Your task to perform on an android device: turn on notifications settings in the gmail app Image 0: 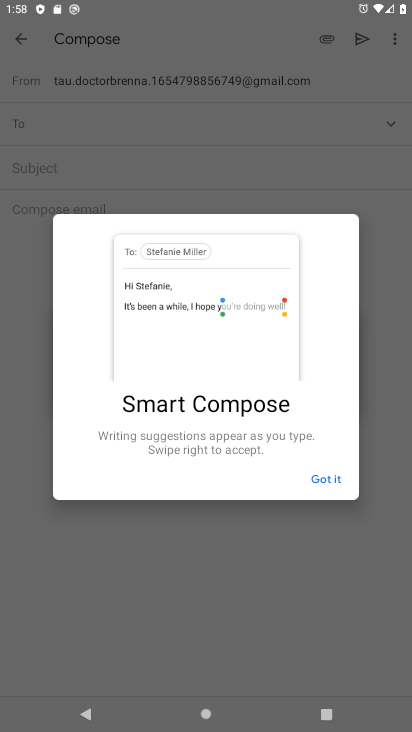
Step 0: press home button
Your task to perform on an android device: turn on notifications settings in the gmail app Image 1: 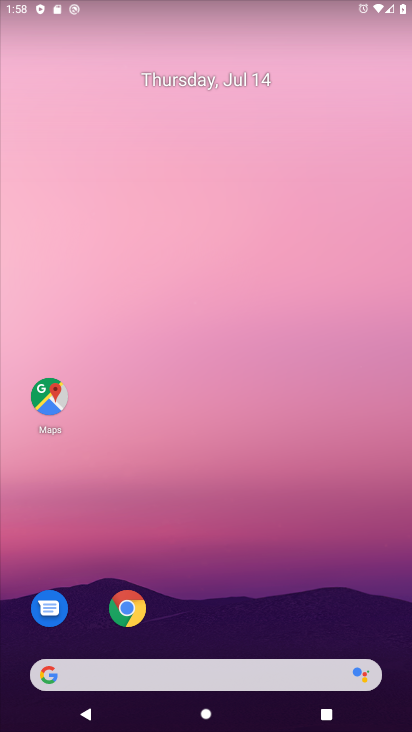
Step 1: drag from (245, 716) to (233, 97)
Your task to perform on an android device: turn on notifications settings in the gmail app Image 2: 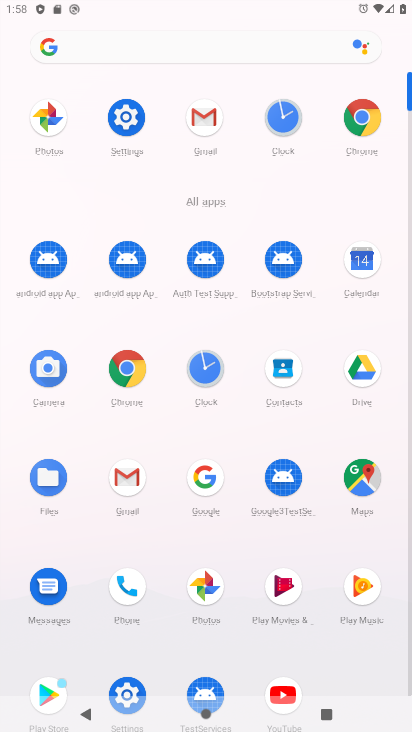
Step 2: click (132, 477)
Your task to perform on an android device: turn on notifications settings in the gmail app Image 3: 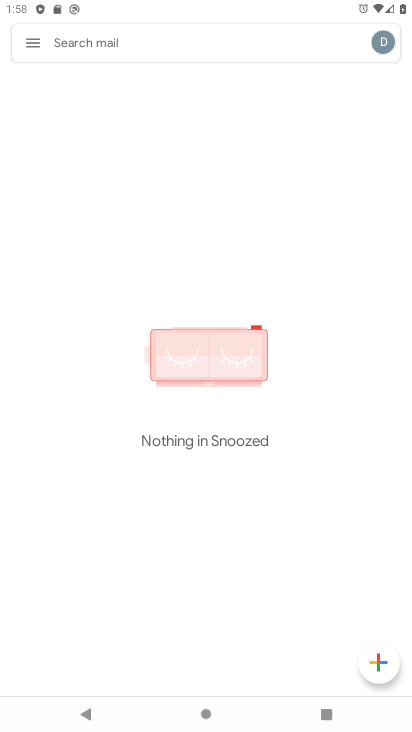
Step 3: click (34, 38)
Your task to perform on an android device: turn on notifications settings in the gmail app Image 4: 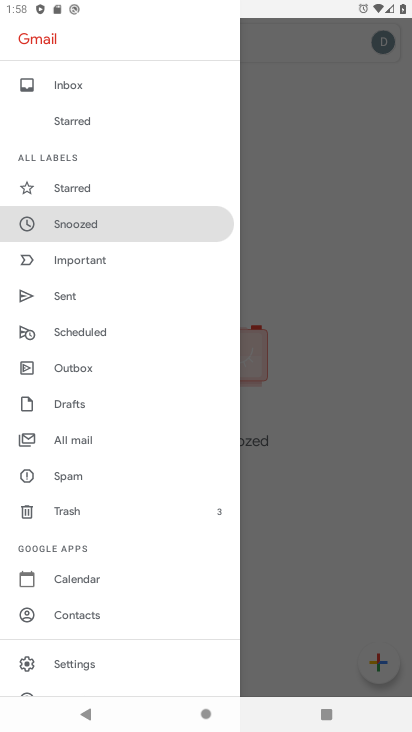
Step 4: click (67, 659)
Your task to perform on an android device: turn on notifications settings in the gmail app Image 5: 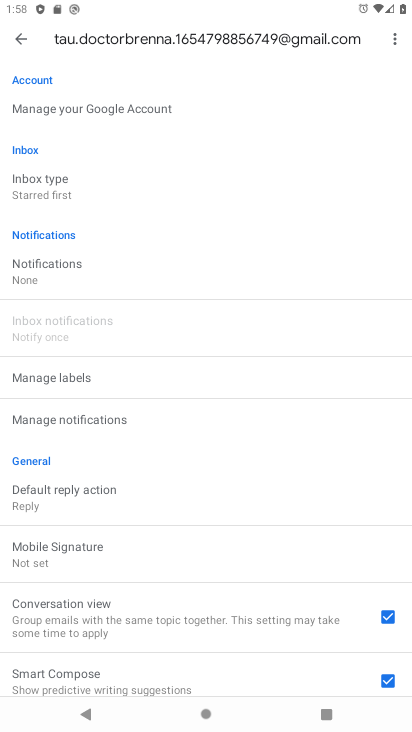
Step 5: click (45, 262)
Your task to perform on an android device: turn on notifications settings in the gmail app Image 6: 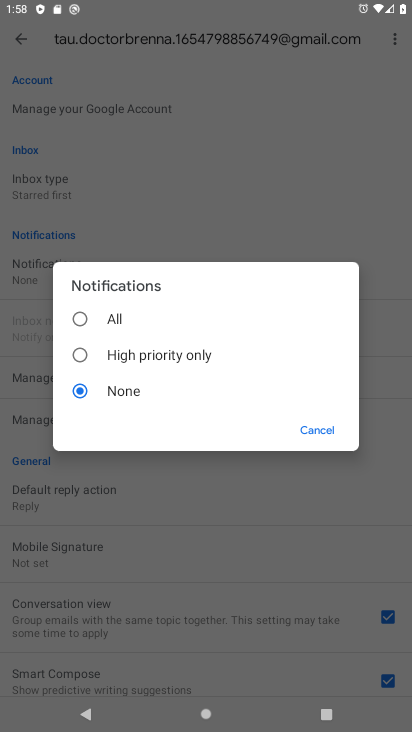
Step 6: click (80, 312)
Your task to perform on an android device: turn on notifications settings in the gmail app Image 7: 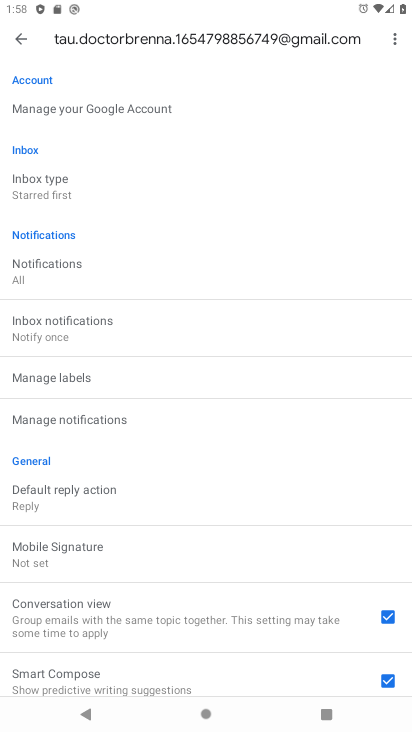
Step 7: task complete